Your task to perform on an android device: What's on my calendar today? Image 0: 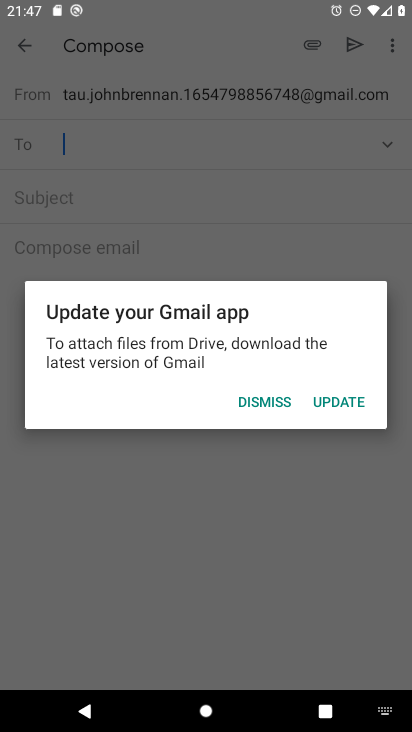
Step 0: press home button
Your task to perform on an android device: What's on my calendar today? Image 1: 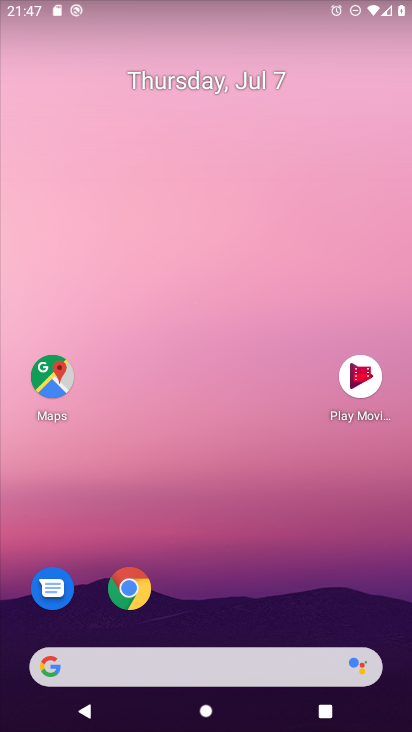
Step 1: drag from (240, 617) to (271, 239)
Your task to perform on an android device: What's on my calendar today? Image 2: 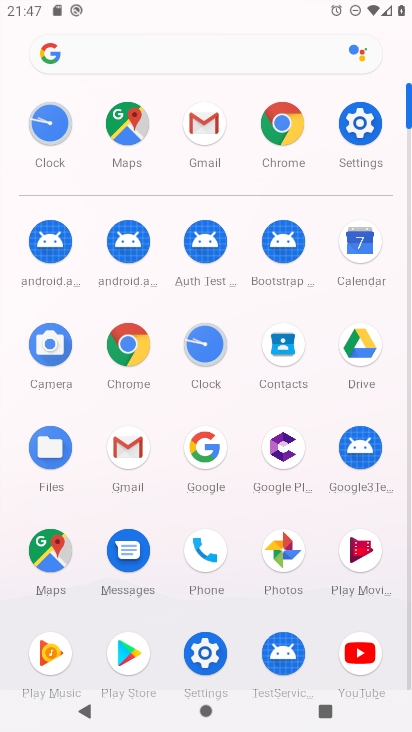
Step 2: click (362, 239)
Your task to perform on an android device: What's on my calendar today? Image 3: 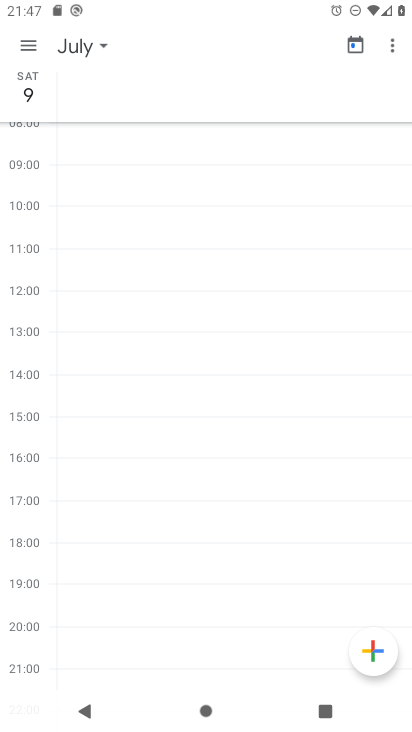
Step 3: click (33, 37)
Your task to perform on an android device: What's on my calendar today? Image 4: 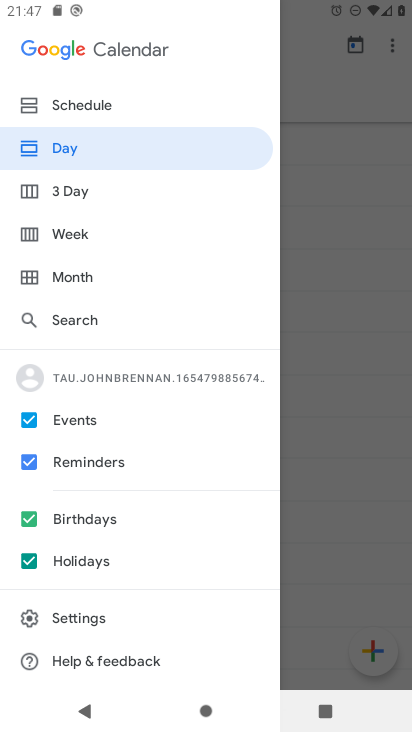
Step 4: click (124, 273)
Your task to perform on an android device: What's on my calendar today? Image 5: 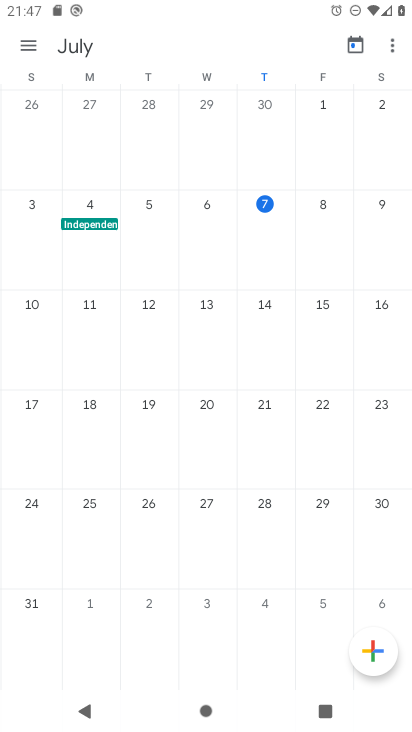
Step 5: click (321, 220)
Your task to perform on an android device: What's on my calendar today? Image 6: 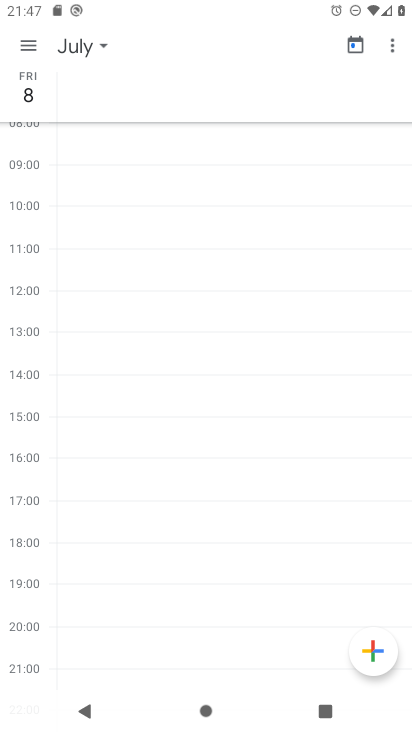
Step 6: task complete